Your task to perform on an android device: check google app version Image 0: 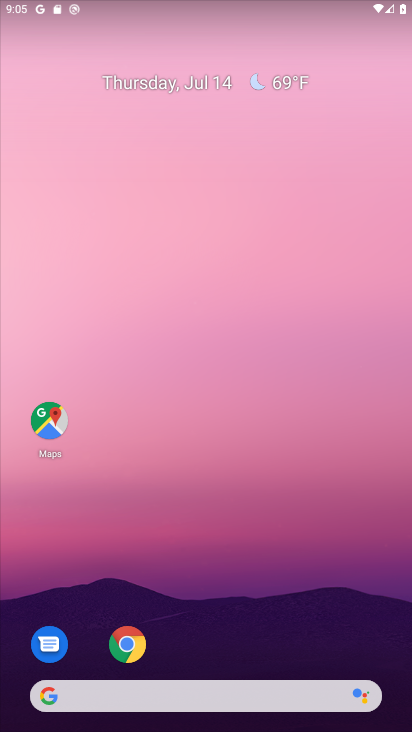
Step 0: click (204, 690)
Your task to perform on an android device: check google app version Image 1: 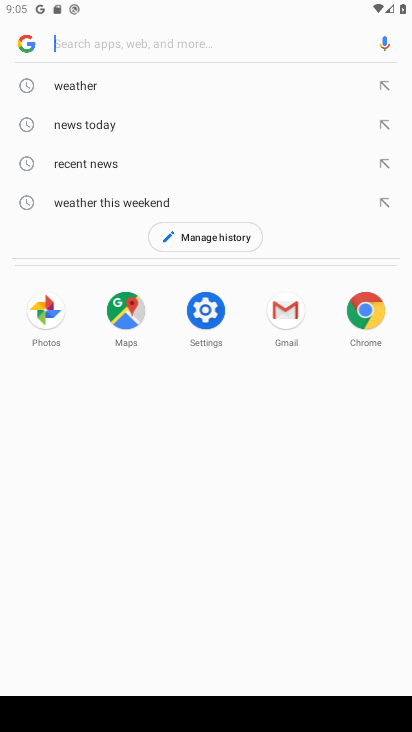
Step 1: click (29, 42)
Your task to perform on an android device: check google app version Image 2: 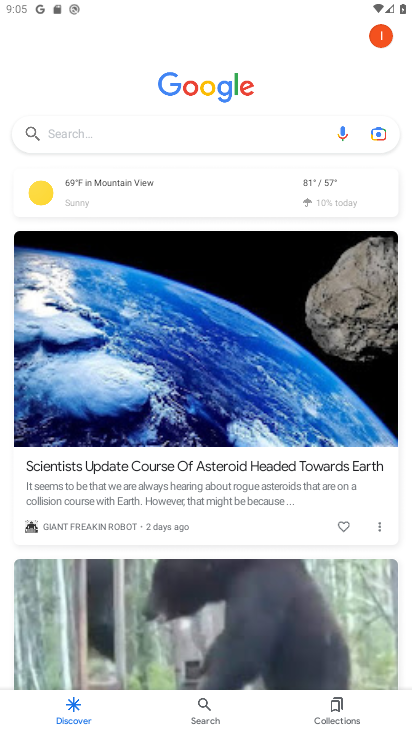
Step 2: click (384, 30)
Your task to perform on an android device: check google app version Image 3: 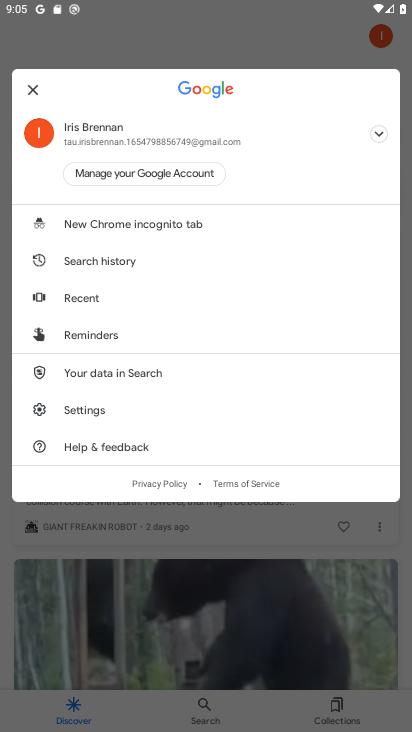
Step 3: click (82, 423)
Your task to perform on an android device: check google app version Image 4: 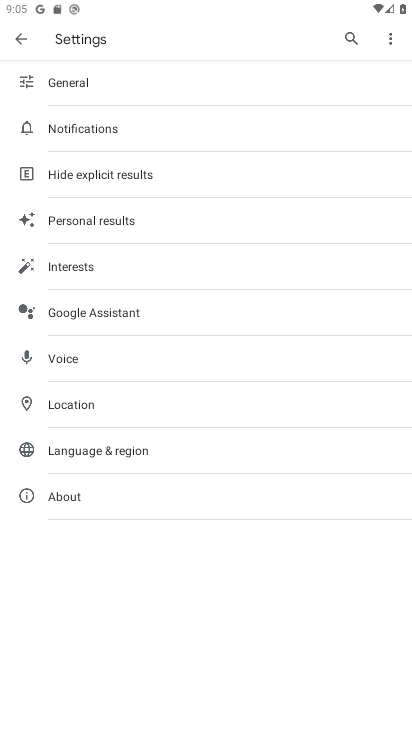
Step 4: click (80, 484)
Your task to perform on an android device: check google app version Image 5: 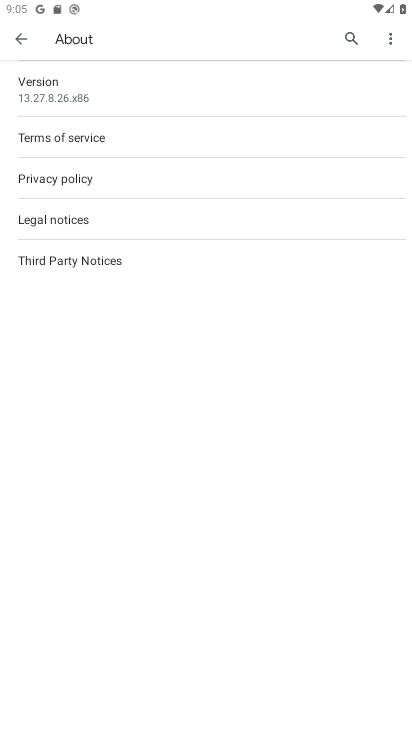
Step 5: task complete